Your task to perform on an android device: Search for seafood restaurants on Google Maps Image 0: 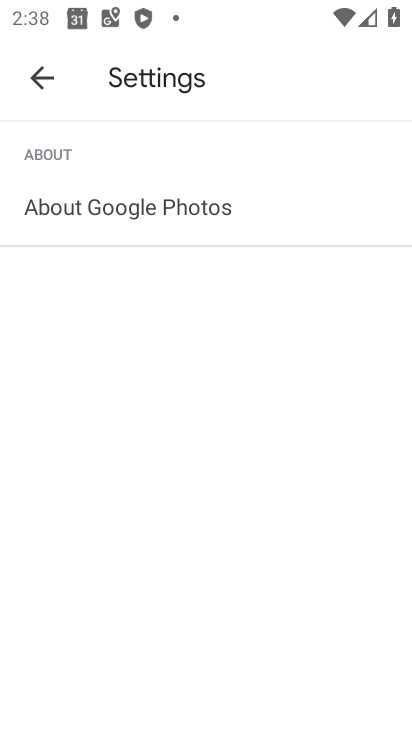
Step 0: press home button
Your task to perform on an android device: Search for seafood restaurants on Google Maps Image 1: 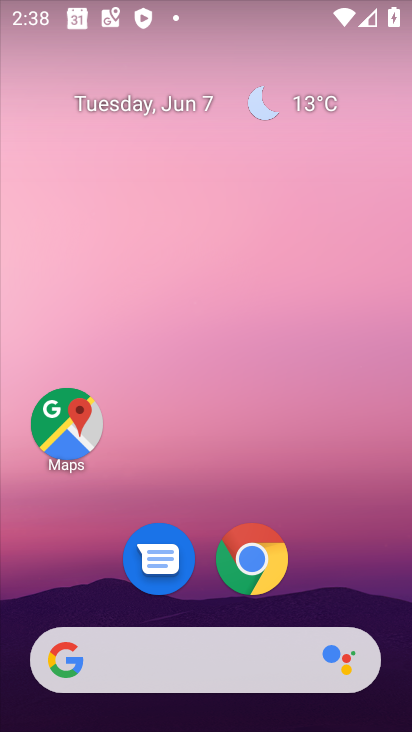
Step 1: click (62, 427)
Your task to perform on an android device: Search for seafood restaurants on Google Maps Image 2: 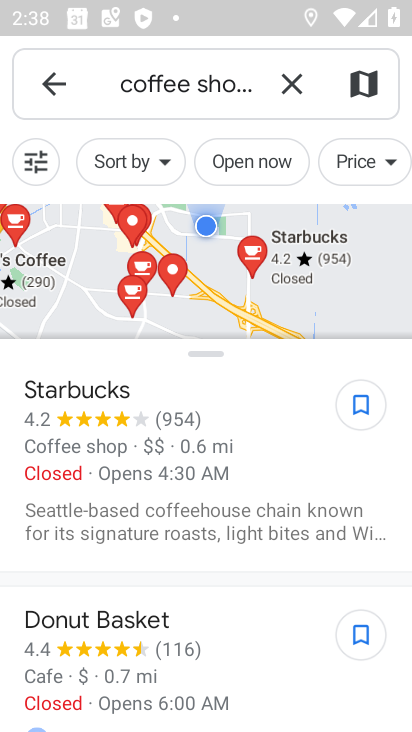
Step 2: click (288, 82)
Your task to perform on an android device: Search for seafood restaurants on Google Maps Image 3: 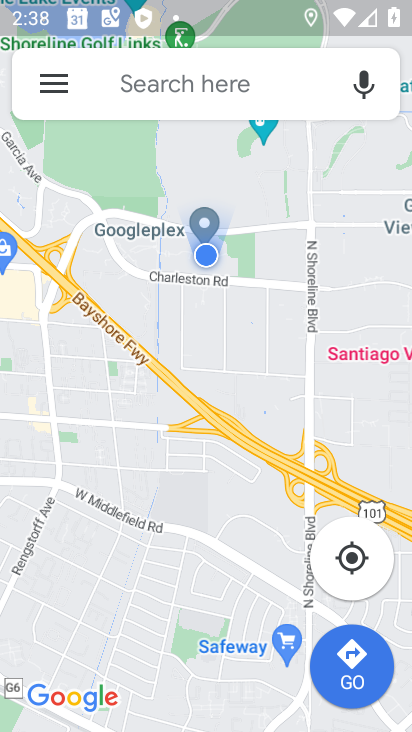
Step 3: click (206, 91)
Your task to perform on an android device: Search for seafood restaurants on Google Maps Image 4: 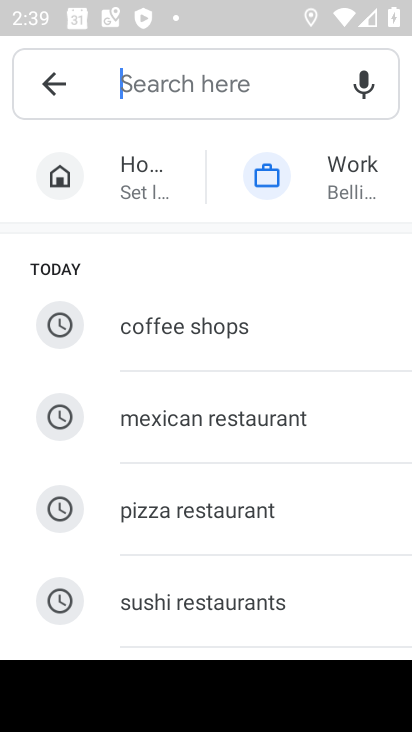
Step 4: type "seafood restaurants"
Your task to perform on an android device: Search for seafood restaurants on Google Maps Image 5: 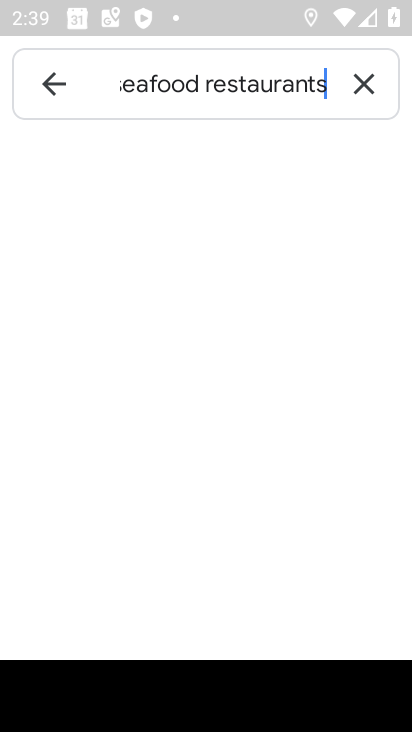
Step 5: type ""
Your task to perform on an android device: Search for seafood restaurants on Google Maps Image 6: 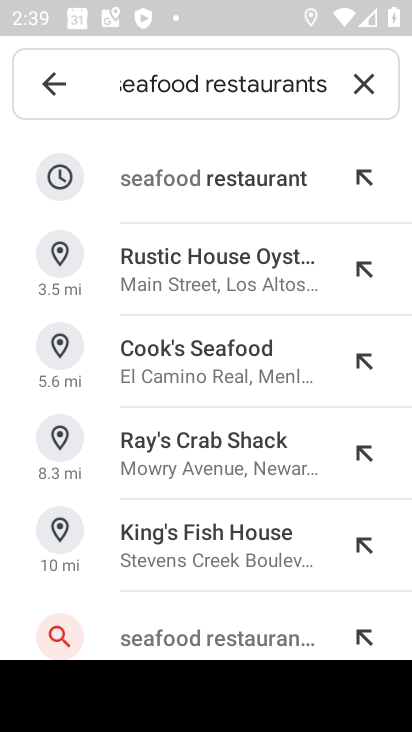
Step 6: click (237, 174)
Your task to perform on an android device: Search for seafood restaurants on Google Maps Image 7: 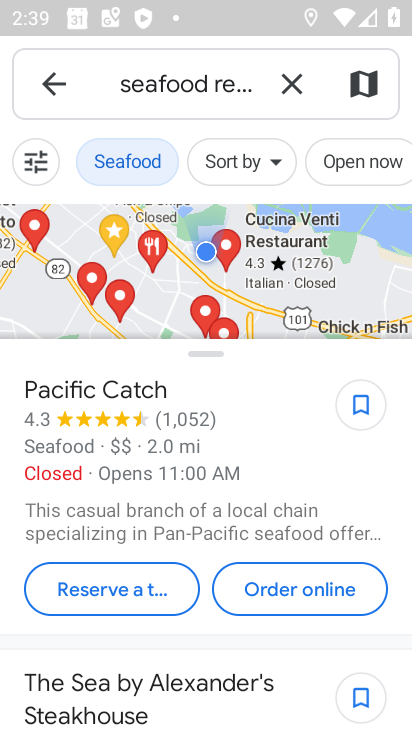
Step 7: task complete